Your task to perform on an android device: Open eBay Image 0: 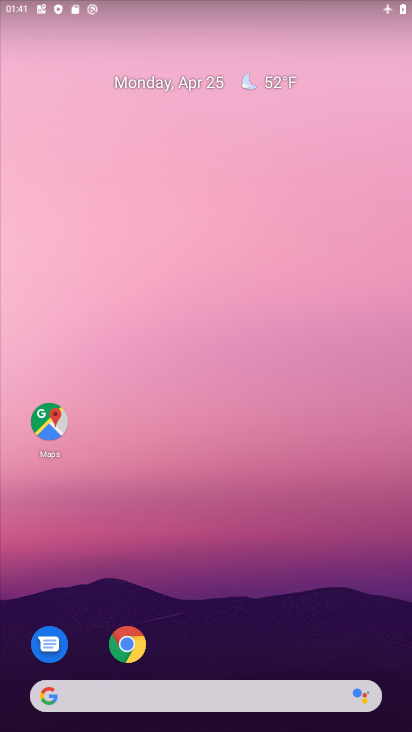
Step 0: drag from (198, 635) to (149, 144)
Your task to perform on an android device: Open eBay Image 1: 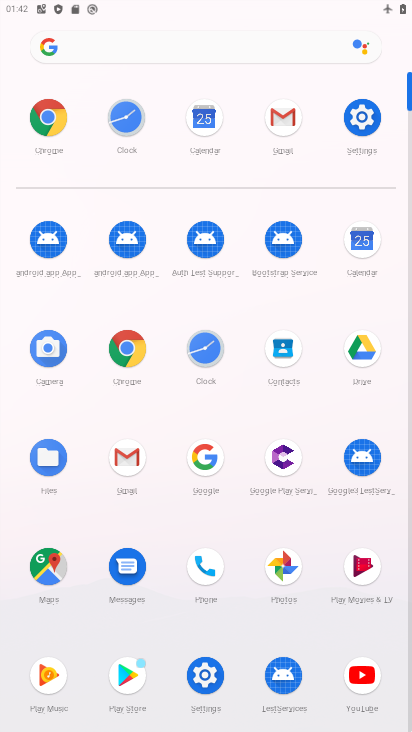
Step 1: click (47, 135)
Your task to perform on an android device: Open eBay Image 2: 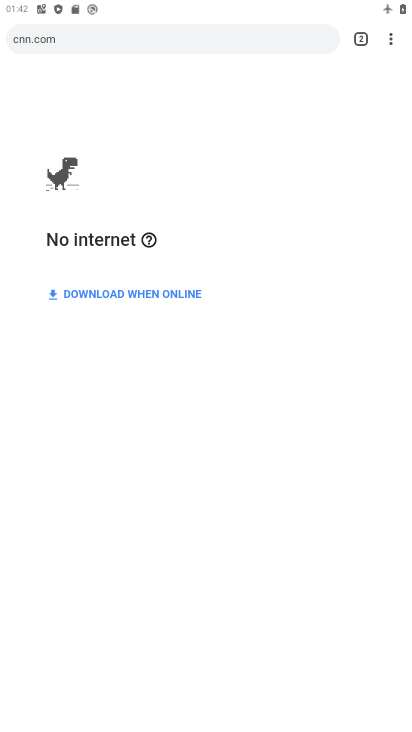
Step 2: task complete